Your task to perform on an android device: Open Yahoo.com Image 0: 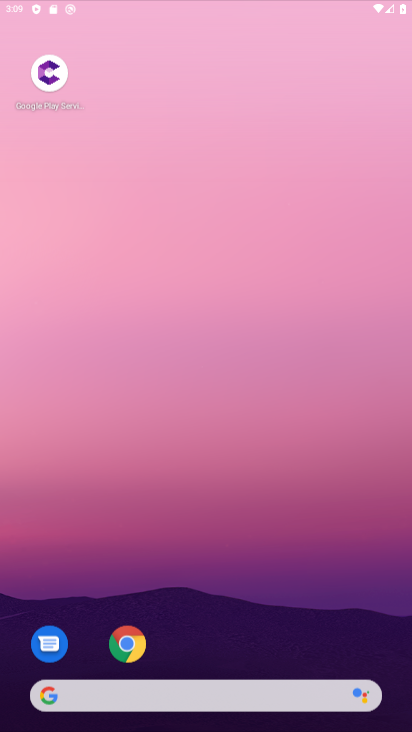
Step 0: click (192, 51)
Your task to perform on an android device: Open Yahoo.com Image 1: 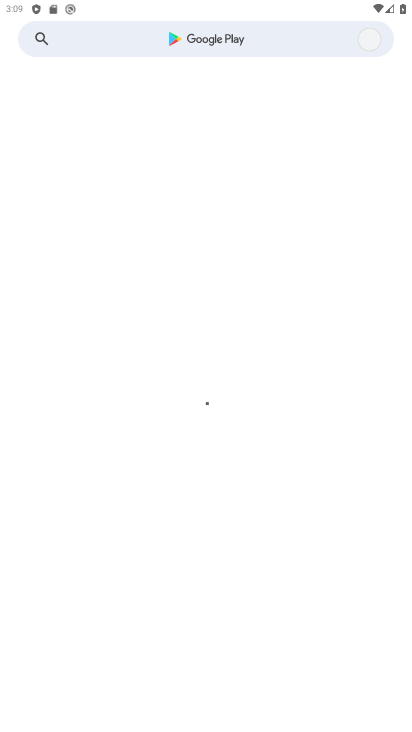
Step 1: drag from (187, 645) to (214, 342)
Your task to perform on an android device: Open Yahoo.com Image 2: 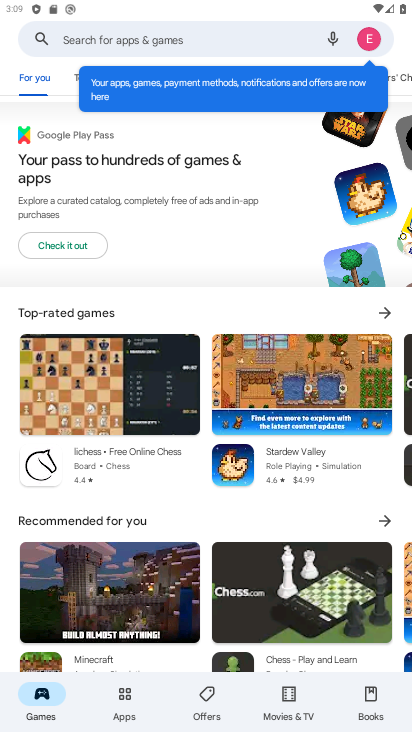
Step 2: press home button
Your task to perform on an android device: Open Yahoo.com Image 3: 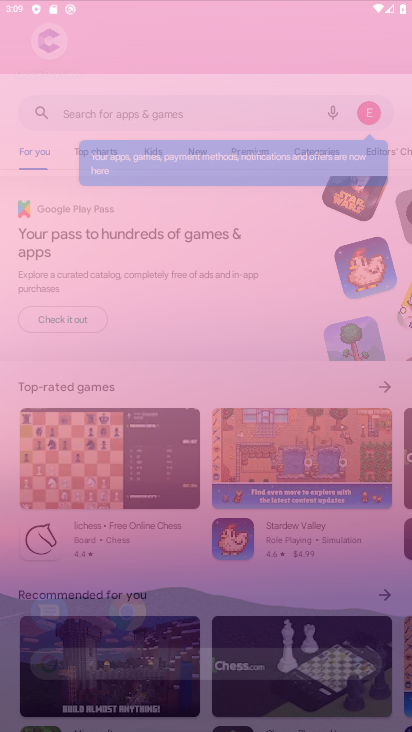
Step 3: drag from (227, 556) to (305, 186)
Your task to perform on an android device: Open Yahoo.com Image 4: 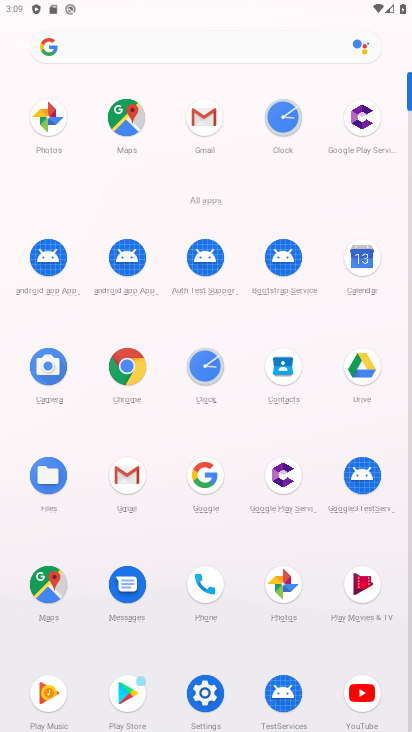
Step 4: click (126, 33)
Your task to perform on an android device: Open Yahoo.com Image 5: 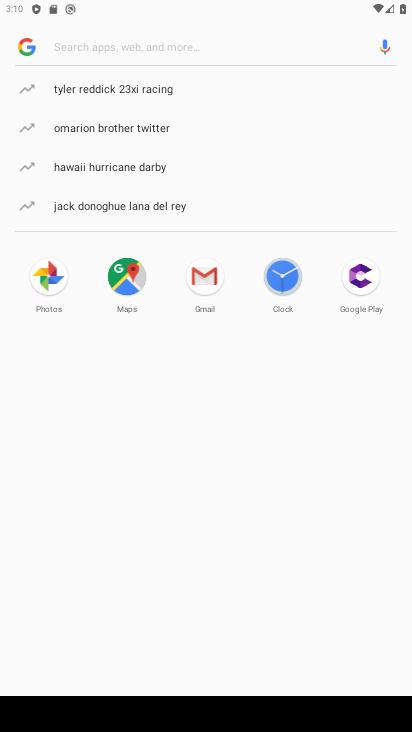
Step 5: type "Yahoo.com"
Your task to perform on an android device: Open Yahoo.com Image 6: 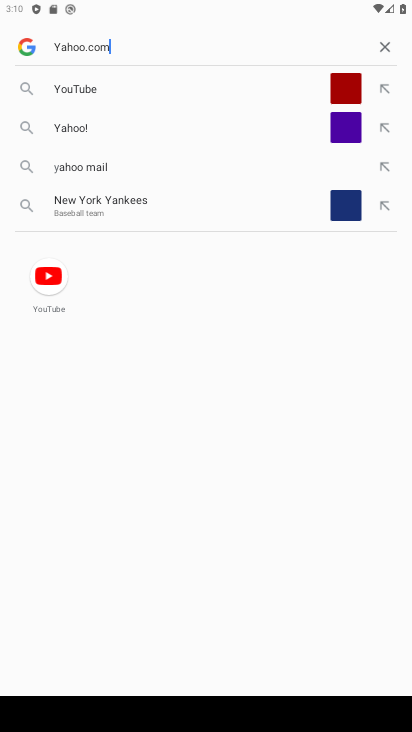
Step 6: type ""
Your task to perform on an android device: Open Yahoo.com Image 7: 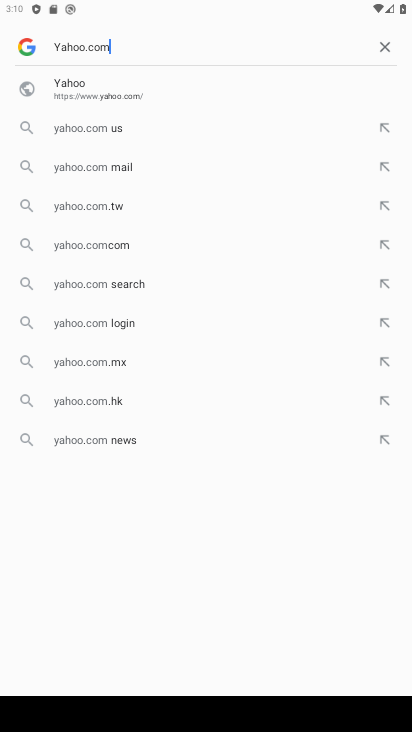
Step 7: click (77, 101)
Your task to perform on an android device: Open Yahoo.com Image 8: 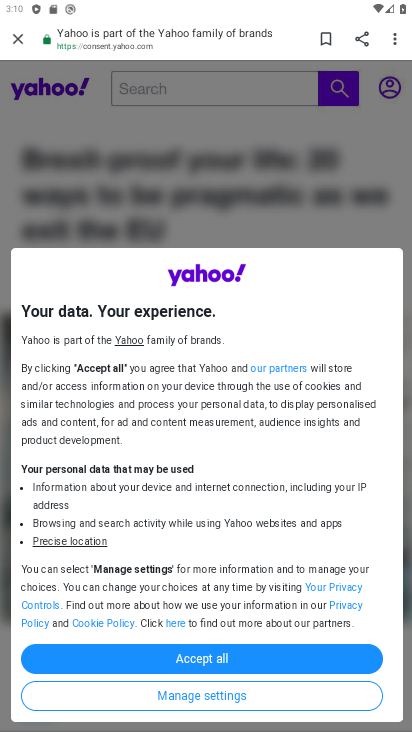
Step 8: task complete